Your task to perform on an android device: Open the calendar app, open the side menu, and click the "Day" option Image 0: 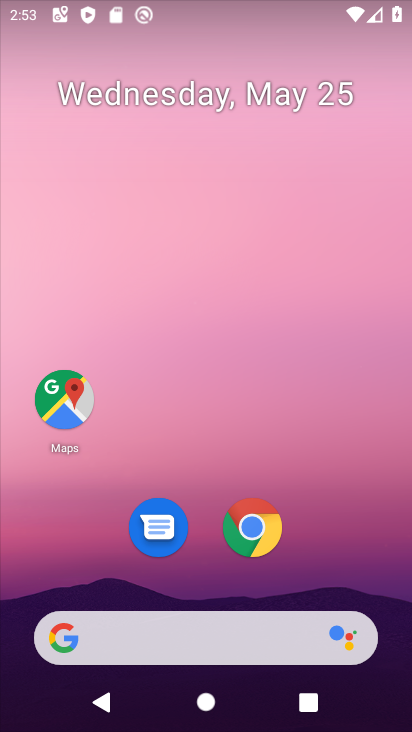
Step 0: drag from (202, 573) to (240, 103)
Your task to perform on an android device: Open the calendar app, open the side menu, and click the "Day" option Image 1: 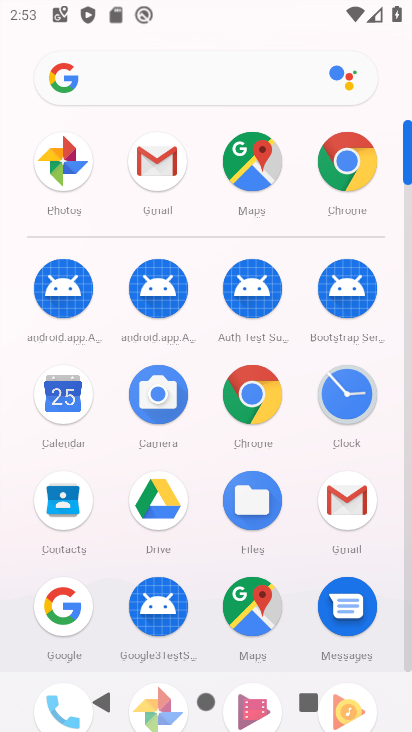
Step 1: click (52, 387)
Your task to perform on an android device: Open the calendar app, open the side menu, and click the "Day" option Image 2: 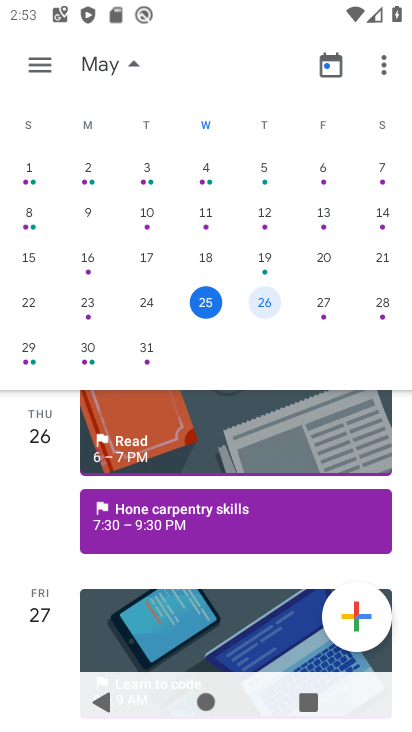
Step 2: click (28, 66)
Your task to perform on an android device: Open the calendar app, open the side menu, and click the "Day" option Image 3: 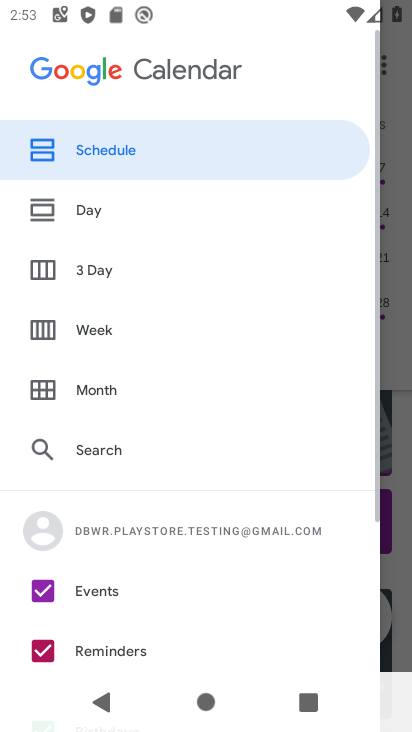
Step 3: click (83, 207)
Your task to perform on an android device: Open the calendar app, open the side menu, and click the "Day" option Image 4: 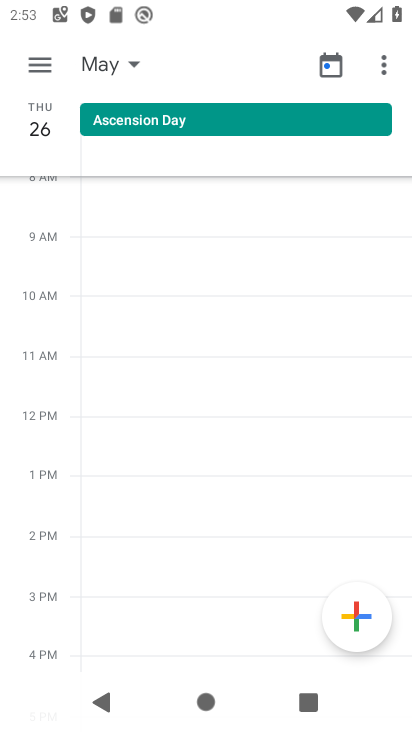
Step 4: task complete